Your task to perform on an android device: Go to privacy settings Image 0: 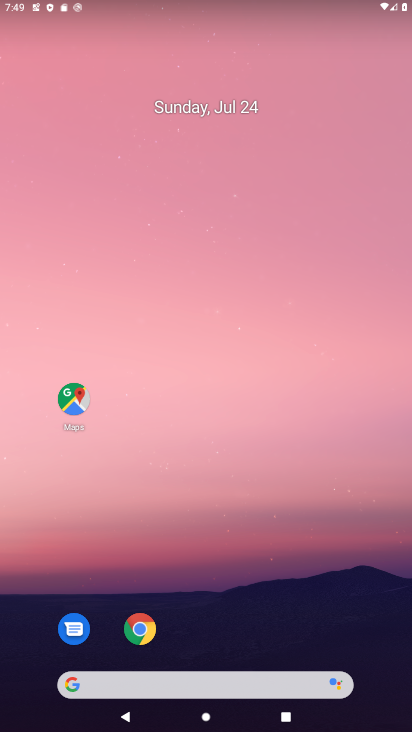
Step 0: press home button
Your task to perform on an android device: Go to privacy settings Image 1: 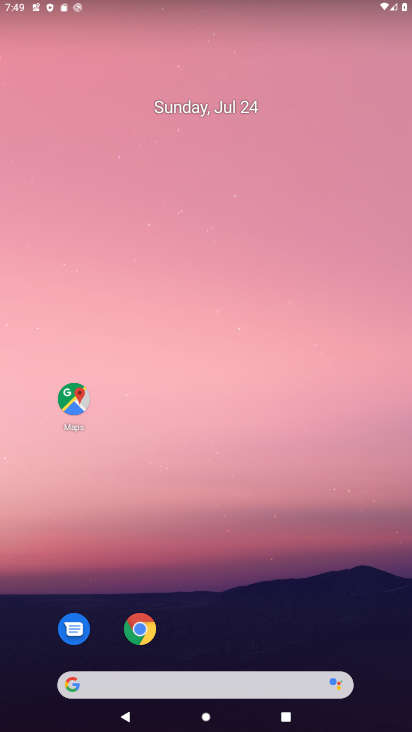
Step 1: drag from (355, 614) to (344, 78)
Your task to perform on an android device: Go to privacy settings Image 2: 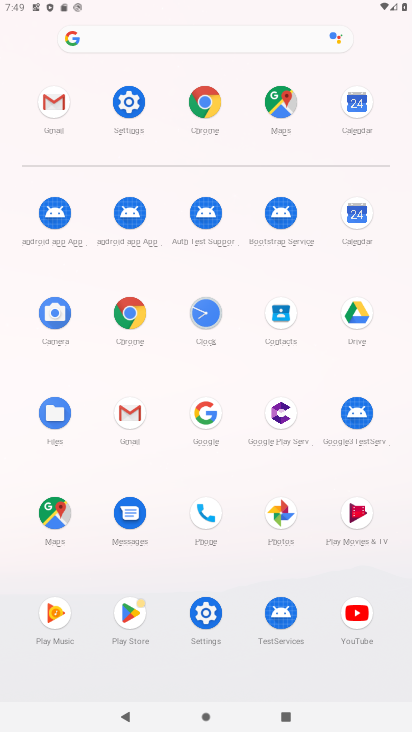
Step 2: click (208, 615)
Your task to perform on an android device: Go to privacy settings Image 3: 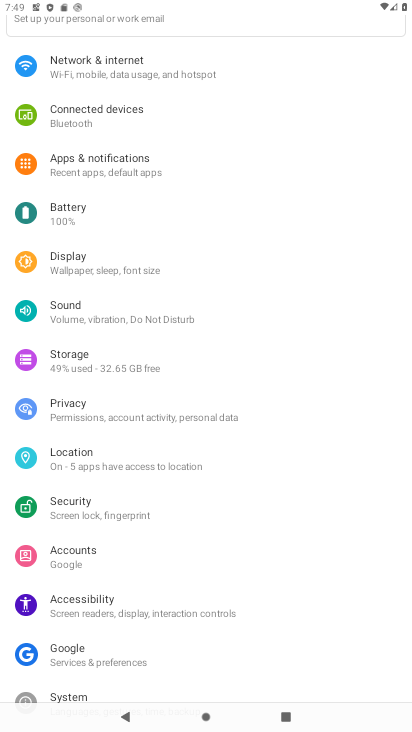
Step 3: drag from (318, 472) to (316, 427)
Your task to perform on an android device: Go to privacy settings Image 4: 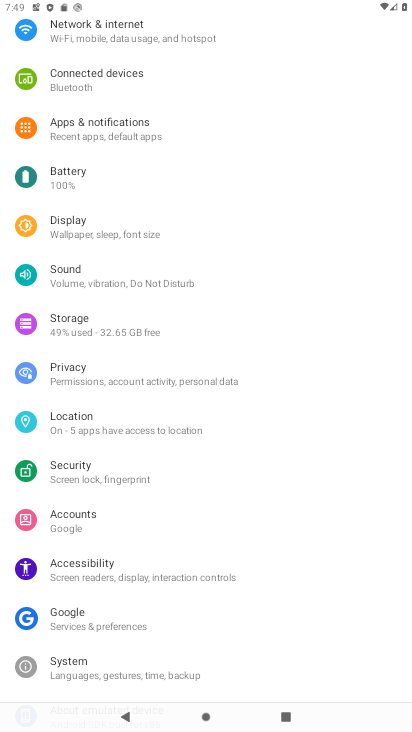
Step 4: drag from (325, 519) to (329, 435)
Your task to perform on an android device: Go to privacy settings Image 5: 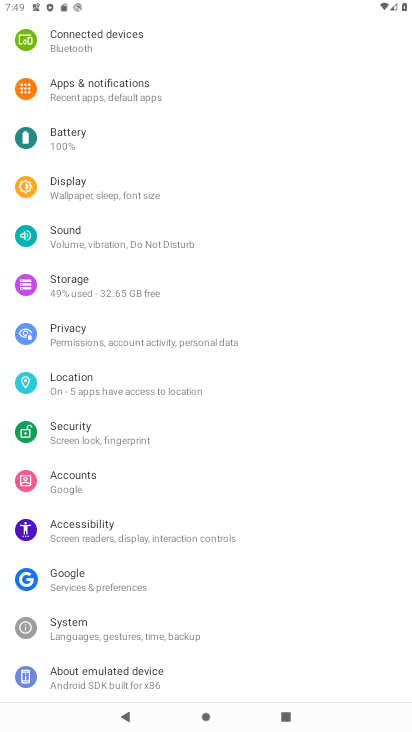
Step 5: drag from (320, 277) to (321, 338)
Your task to perform on an android device: Go to privacy settings Image 6: 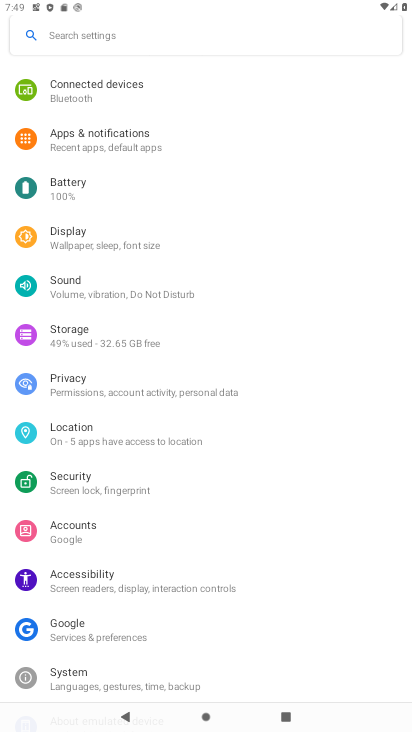
Step 6: drag from (321, 225) to (320, 374)
Your task to perform on an android device: Go to privacy settings Image 7: 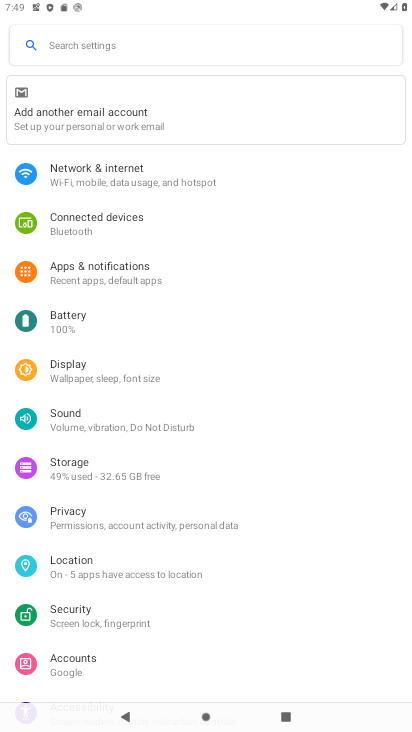
Step 7: drag from (314, 237) to (317, 419)
Your task to perform on an android device: Go to privacy settings Image 8: 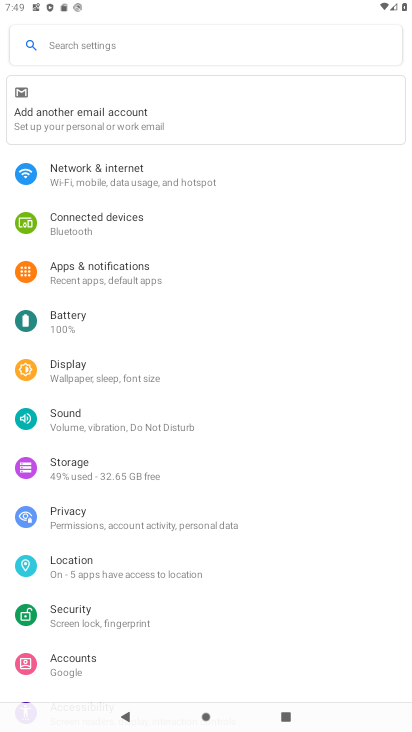
Step 8: click (257, 512)
Your task to perform on an android device: Go to privacy settings Image 9: 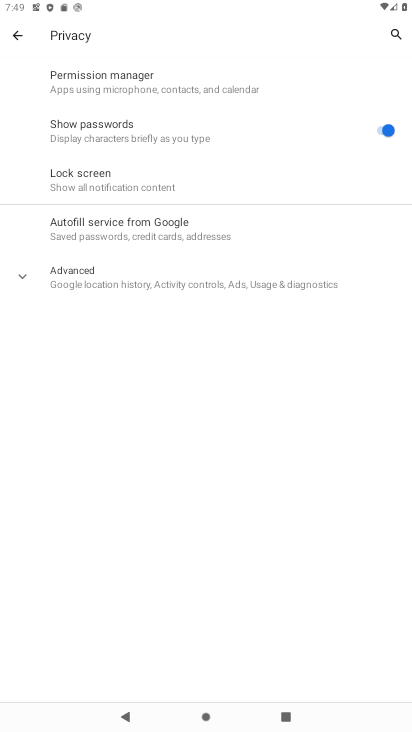
Step 9: click (148, 268)
Your task to perform on an android device: Go to privacy settings Image 10: 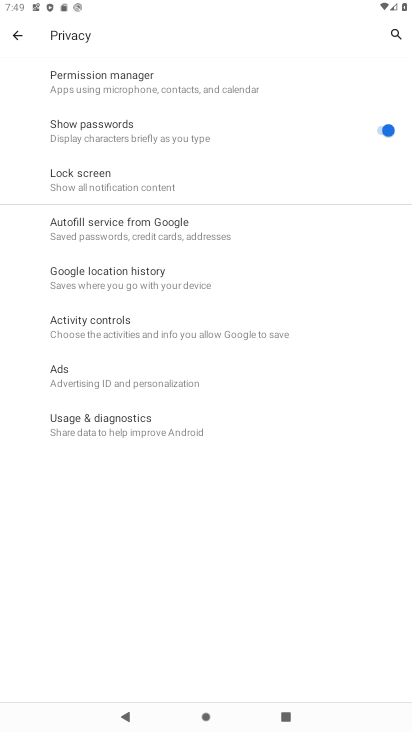
Step 10: task complete